Your task to perform on an android device: Go to Yahoo.com Image 0: 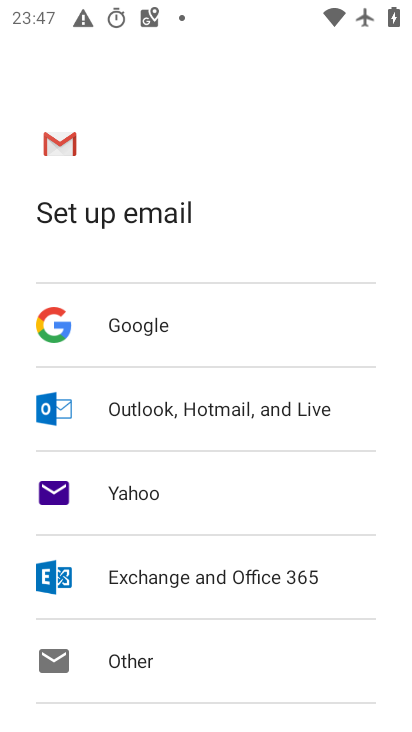
Step 0: press back button
Your task to perform on an android device: Go to Yahoo.com Image 1: 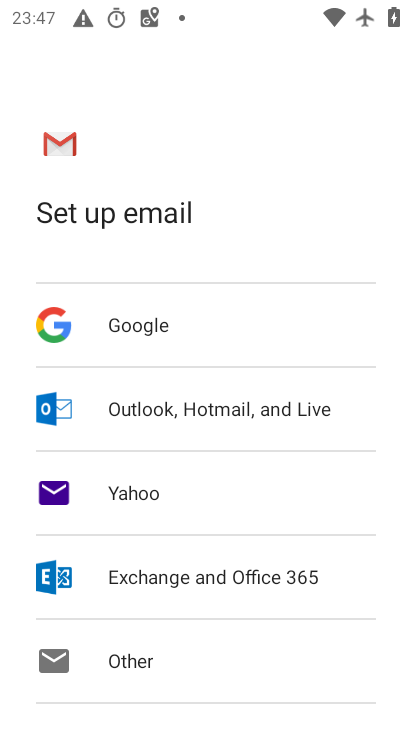
Step 1: press back button
Your task to perform on an android device: Go to Yahoo.com Image 2: 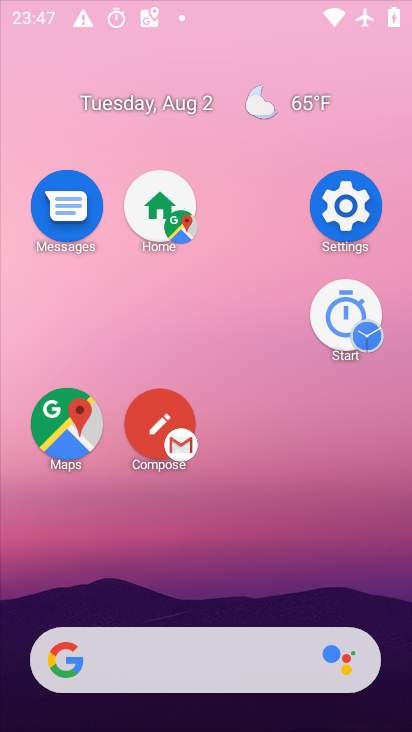
Step 2: press back button
Your task to perform on an android device: Go to Yahoo.com Image 3: 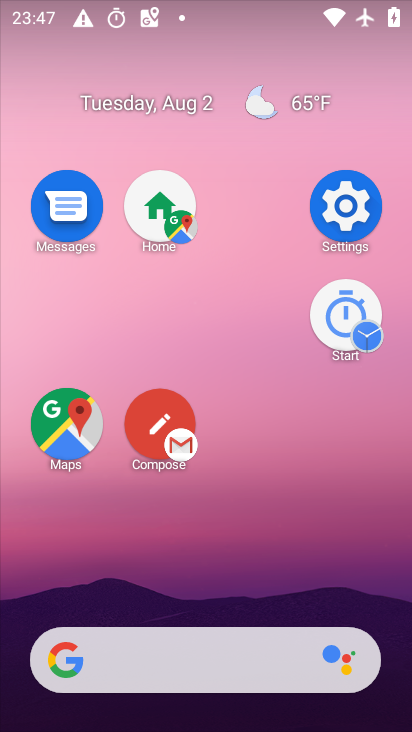
Step 3: drag from (240, 591) to (214, 214)
Your task to perform on an android device: Go to Yahoo.com Image 4: 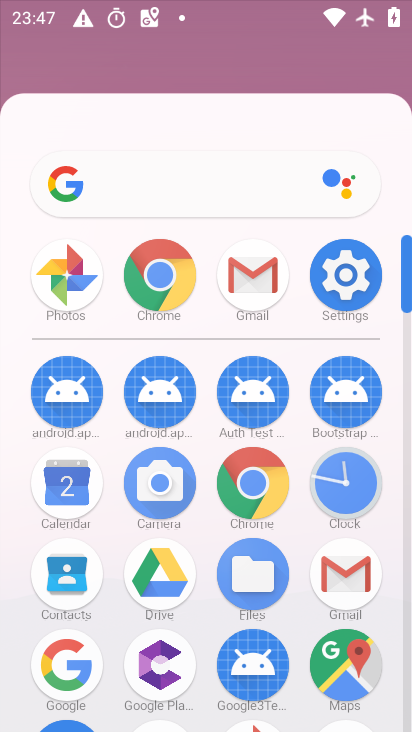
Step 4: drag from (304, 461) to (270, 109)
Your task to perform on an android device: Go to Yahoo.com Image 5: 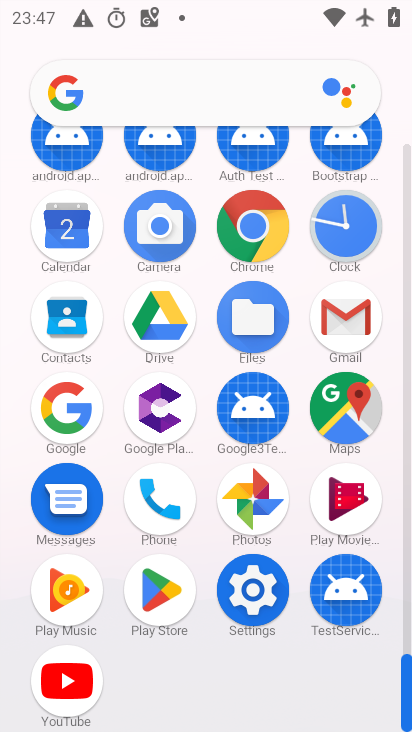
Step 5: click (255, 232)
Your task to perform on an android device: Go to Yahoo.com Image 6: 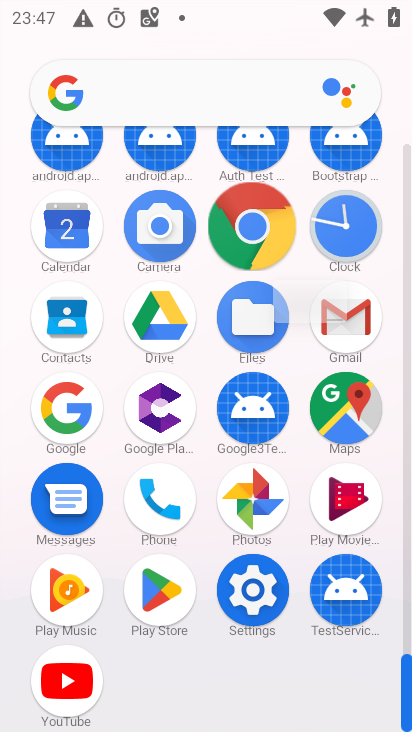
Step 6: click (262, 238)
Your task to perform on an android device: Go to Yahoo.com Image 7: 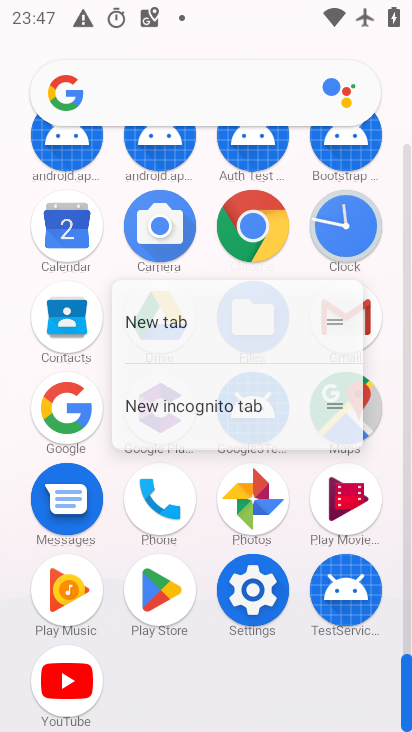
Step 7: click (262, 238)
Your task to perform on an android device: Go to Yahoo.com Image 8: 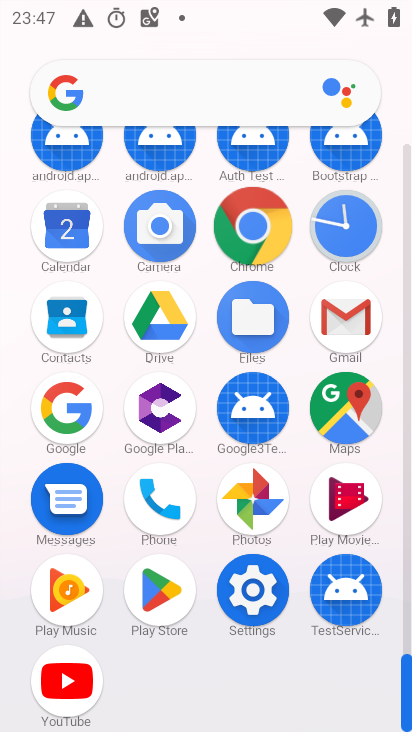
Step 8: click (263, 237)
Your task to perform on an android device: Go to Yahoo.com Image 9: 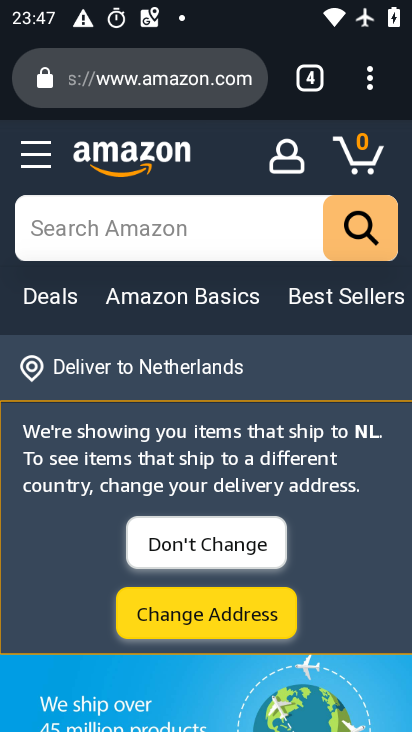
Step 9: drag from (369, 76) to (66, 149)
Your task to perform on an android device: Go to Yahoo.com Image 10: 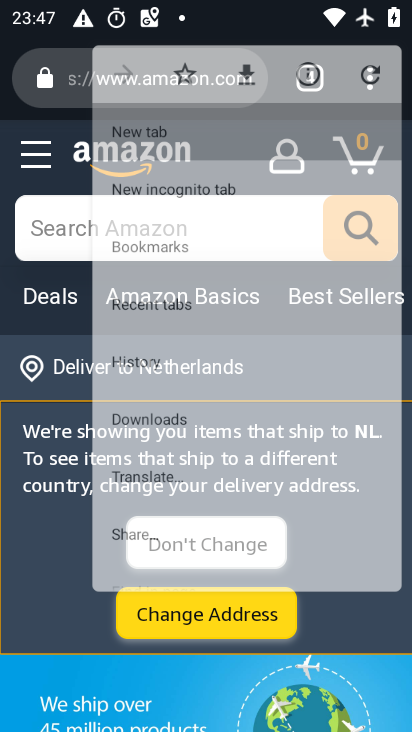
Step 10: click (67, 148)
Your task to perform on an android device: Go to Yahoo.com Image 11: 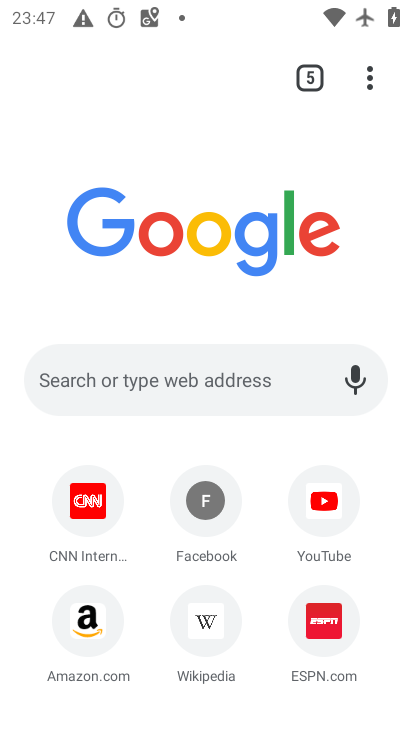
Step 11: drag from (200, 535) to (200, 242)
Your task to perform on an android device: Go to Yahoo.com Image 12: 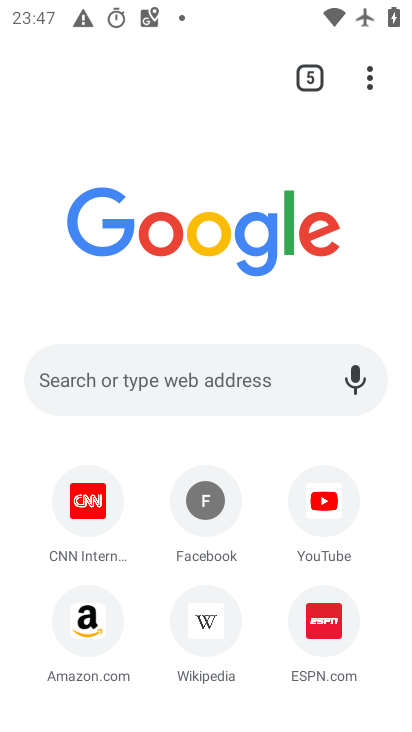
Step 12: drag from (265, 545) to (265, 353)
Your task to perform on an android device: Go to Yahoo.com Image 13: 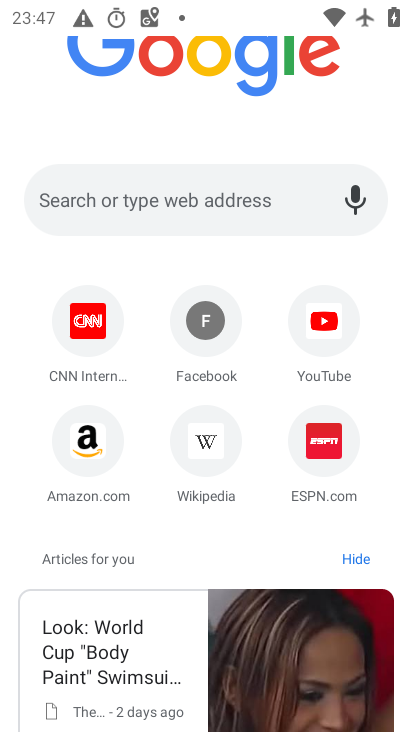
Step 13: drag from (178, 282) to (134, 579)
Your task to perform on an android device: Go to Yahoo.com Image 14: 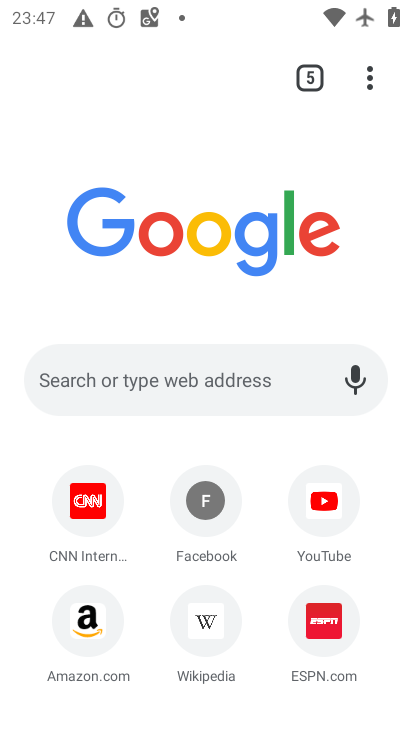
Step 14: click (85, 382)
Your task to perform on an android device: Go to Yahoo.com Image 15: 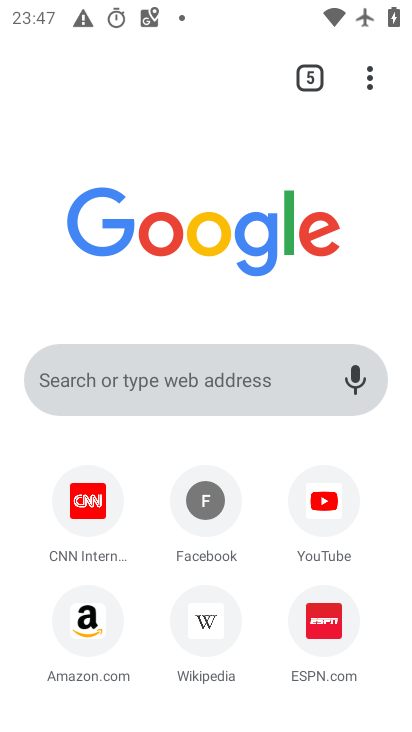
Step 15: click (85, 382)
Your task to perform on an android device: Go to Yahoo.com Image 16: 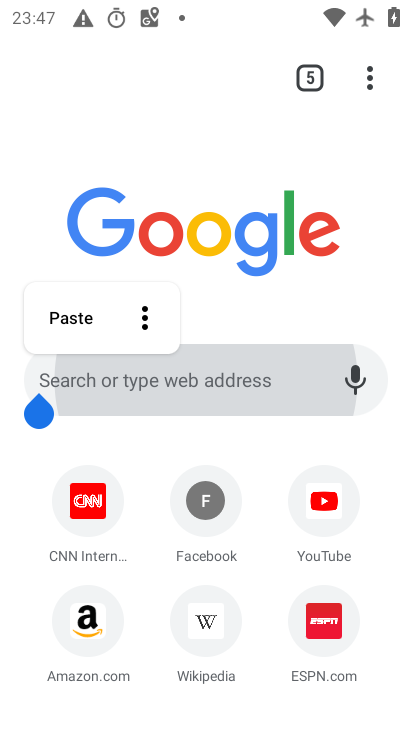
Step 16: click (85, 382)
Your task to perform on an android device: Go to Yahoo.com Image 17: 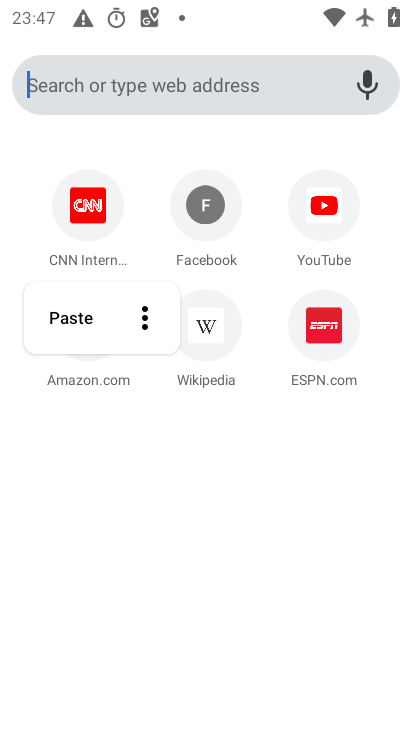
Step 17: click (89, 380)
Your task to perform on an android device: Go to Yahoo.com Image 18: 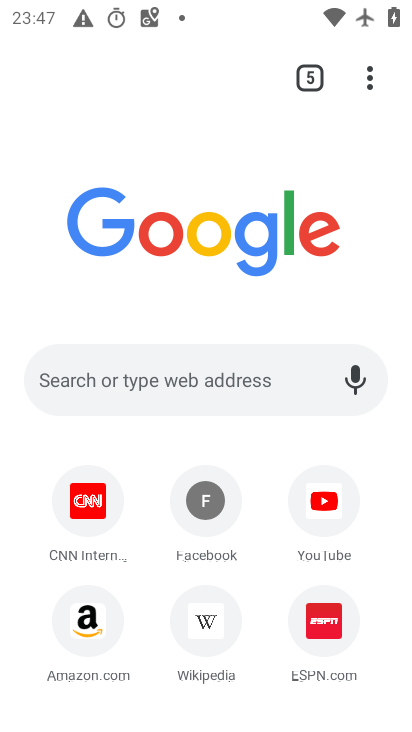
Step 18: click (77, 378)
Your task to perform on an android device: Go to Yahoo.com Image 19: 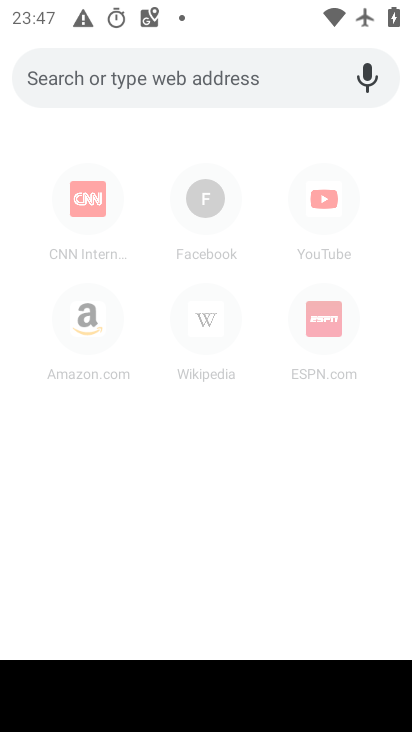
Step 19: type "yahoo.com"
Your task to perform on an android device: Go to Yahoo.com Image 20: 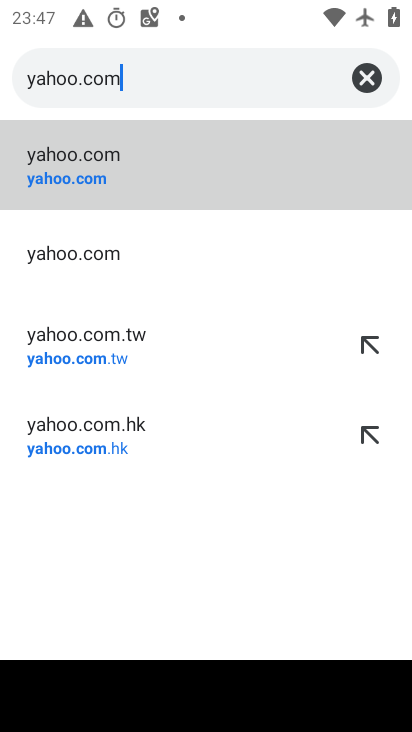
Step 20: click (47, 168)
Your task to perform on an android device: Go to Yahoo.com Image 21: 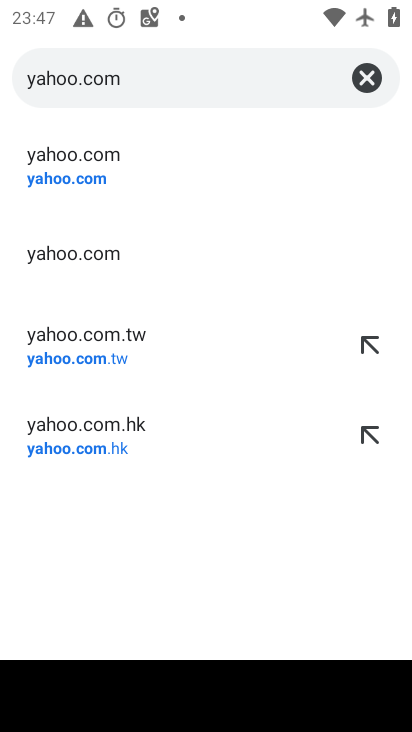
Step 21: click (55, 177)
Your task to perform on an android device: Go to Yahoo.com Image 22: 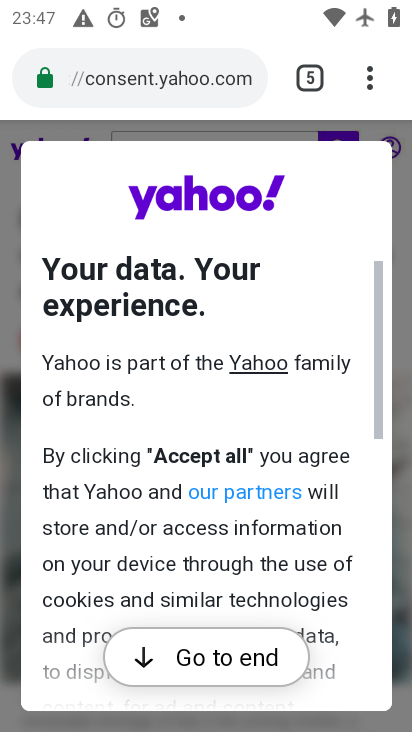
Step 22: task complete